Your task to perform on an android device: turn notification dots off Image 0: 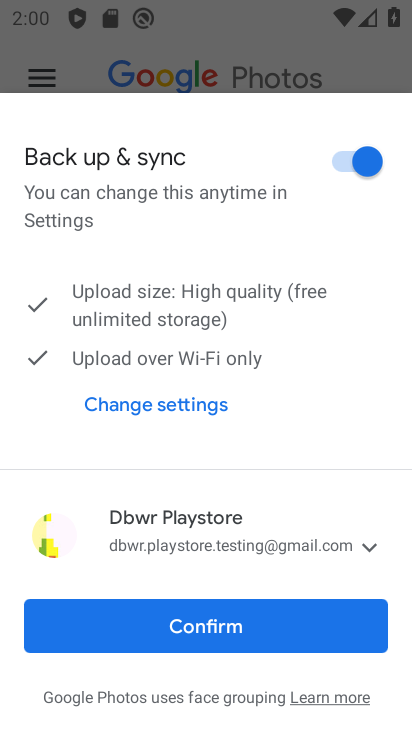
Step 0: click (205, 628)
Your task to perform on an android device: turn notification dots off Image 1: 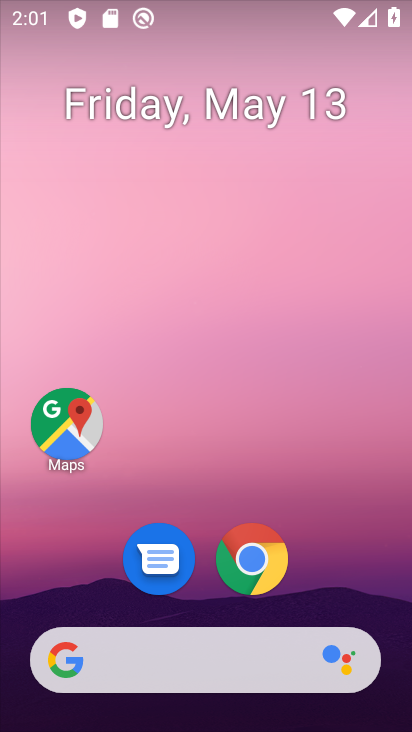
Step 1: drag from (86, 529) to (255, 37)
Your task to perform on an android device: turn notification dots off Image 2: 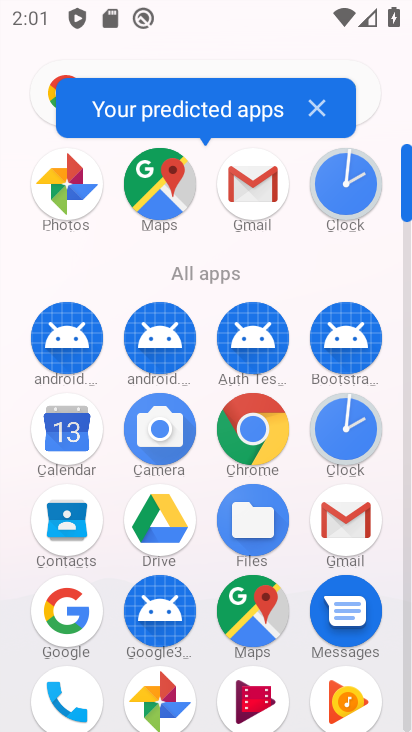
Step 2: drag from (173, 578) to (287, 100)
Your task to perform on an android device: turn notification dots off Image 3: 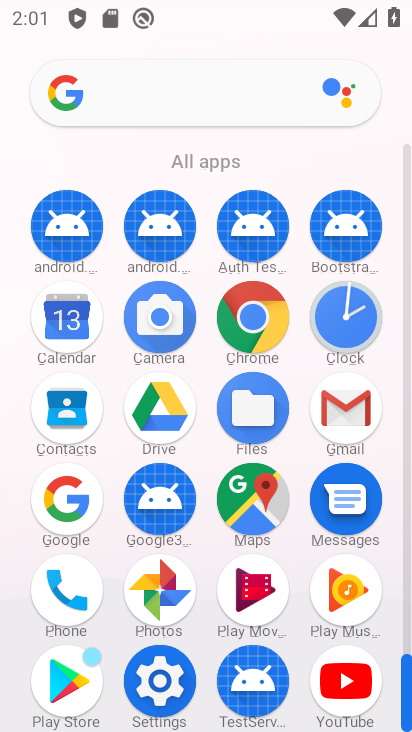
Step 3: click (150, 673)
Your task to perform on an android device: turn notification dots off Image 4: 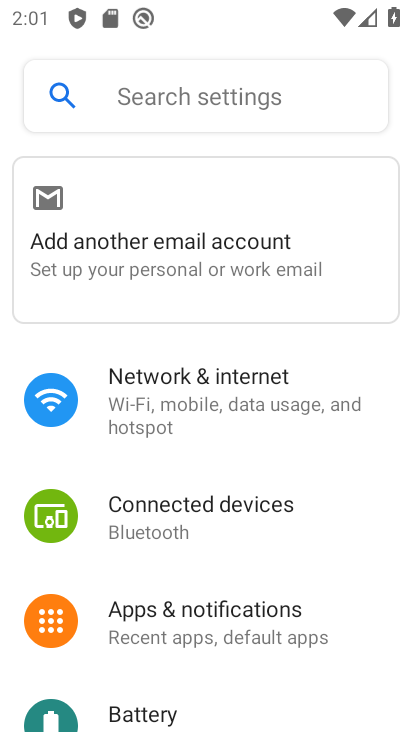
Step 4: click (246, 623)
Your task to perform on an android device: turn notification dots off Image 5: 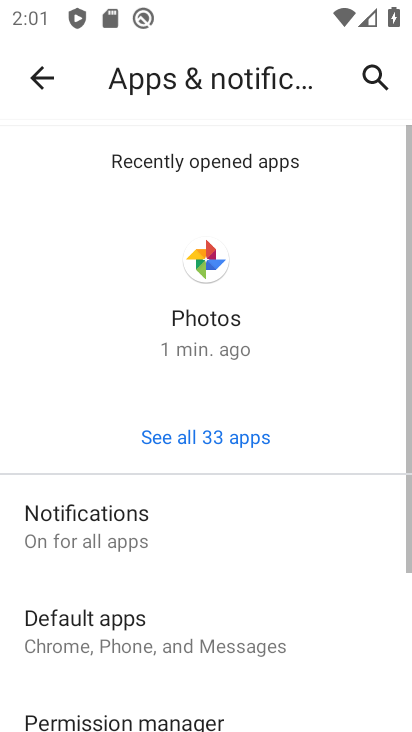
Step 5: drag from (215, 649) to (293, 203)
Your task to perform on an android device: turn notification dots off Image 6: 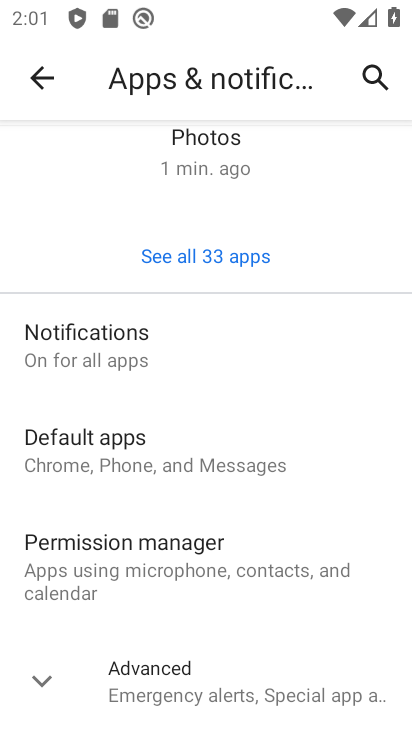
Step 6: click (140, 341)
Your task to perform on an android device: turn notification dots off Image 7: 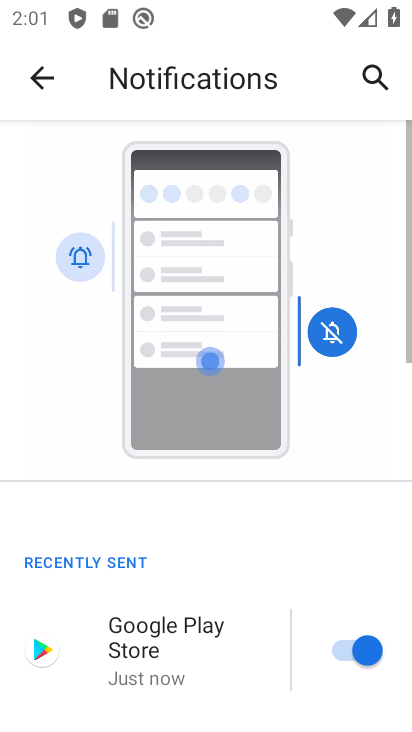
Step 7: drag from (232, 582) to (311, 46)
Your task to perform on an android device: turn notification dots off Image 8: 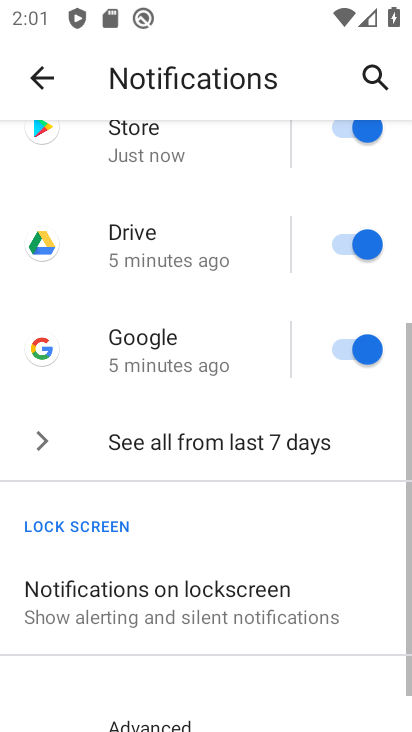
Step 8: drag from (189, 618) to (263, 81)
Your task to perform on an android device: turn notification dots off Image 9: 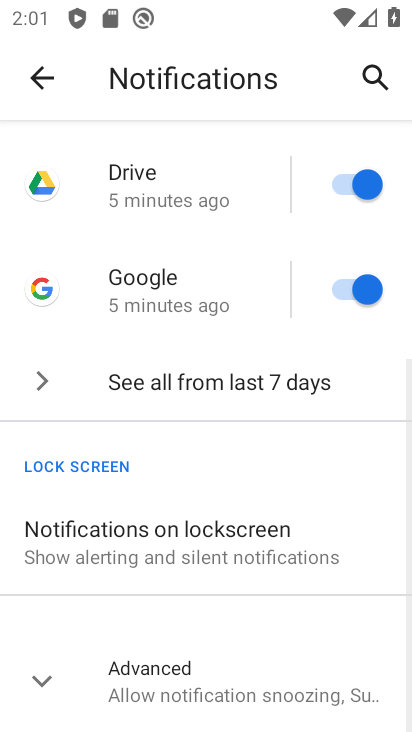
Step 9: click (249, 674)
Your task to perform on an android device: turn notification dots off Image 10: 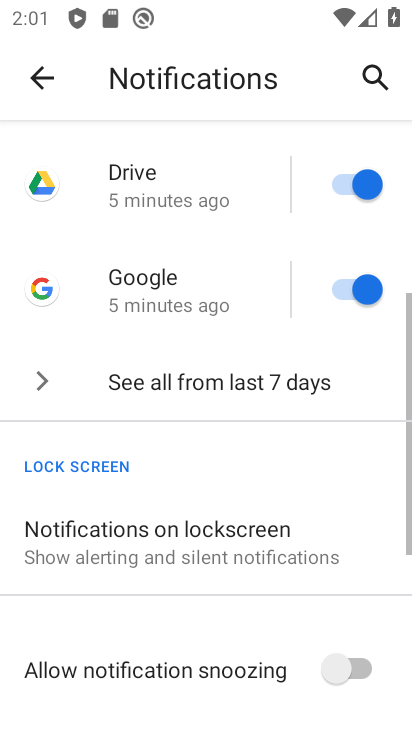
Step 10: drag from (241, 613) to (288, 174)
Your task to perform on an android device: turn notification dots off Image 11: 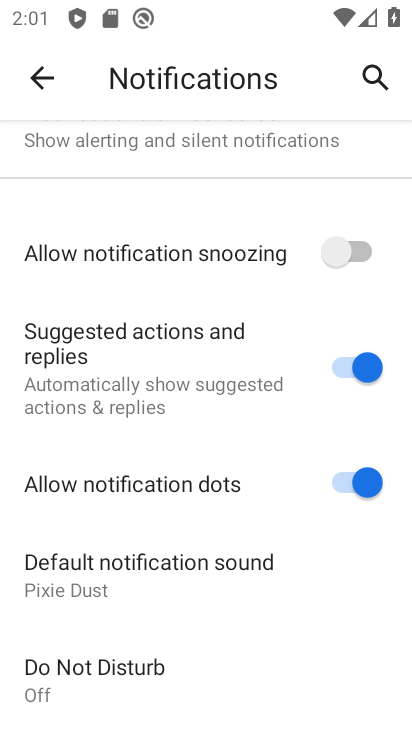
Step 11: click (363, 483)
Your task to perform on an android device: turn notification dots off Image 12: 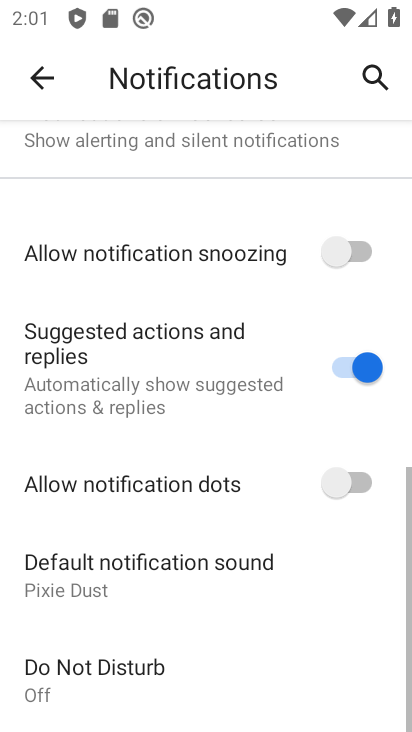
Step 12: task complete